Your task to perform on an android device: How big is the sun? Image 0: 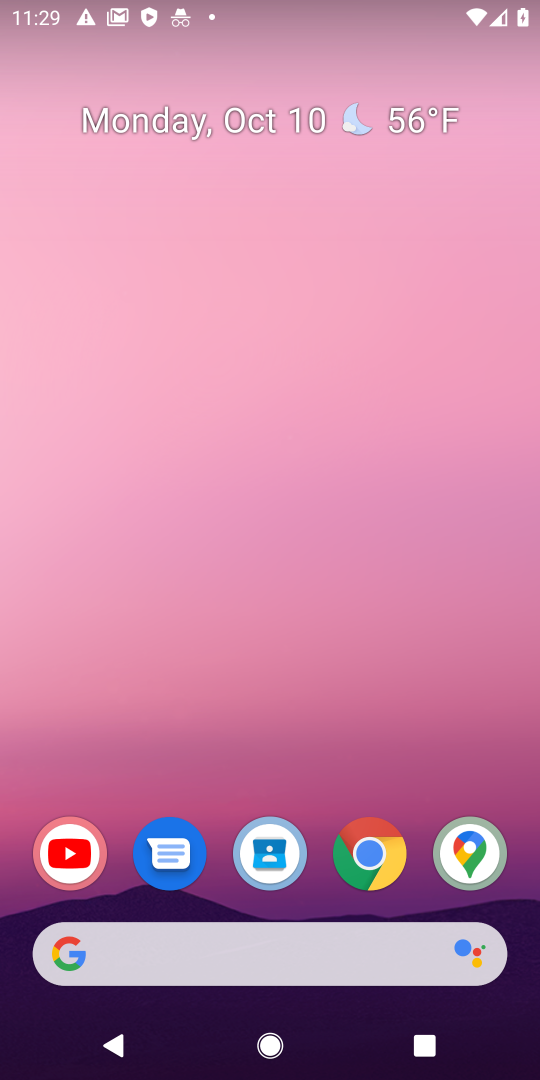
Step 0: click (338, 966)
Your task to perform on an android device: How big is the sun? Image 1: 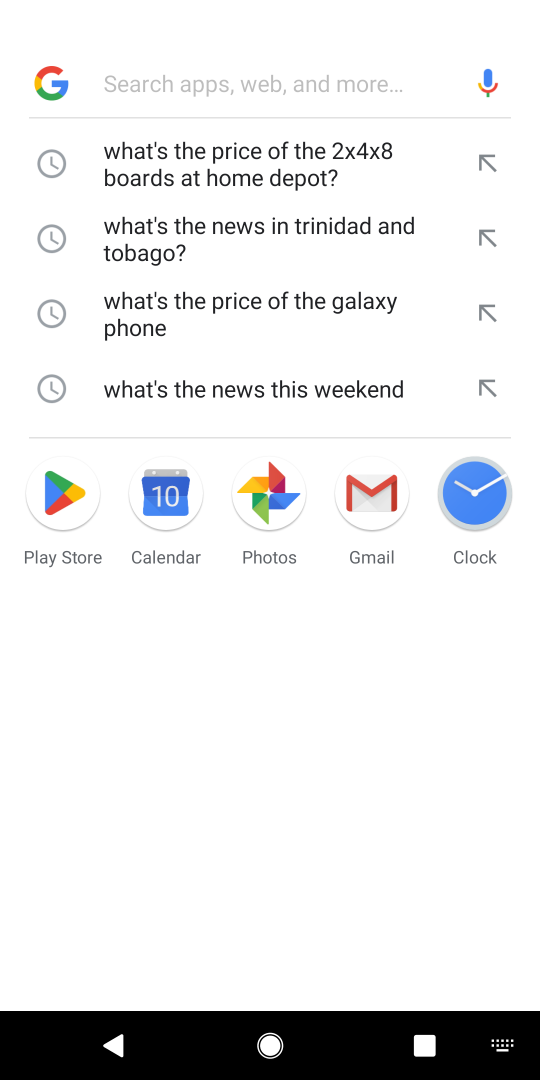
Step 1: type "How big is the sun?"
Your task to perform on an android device: How big is the sun? Image 2: 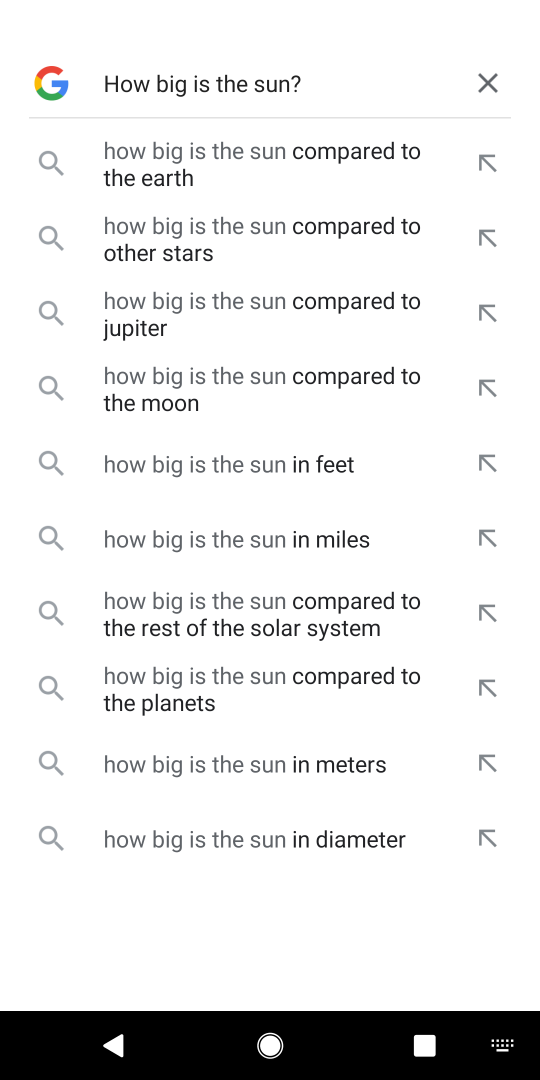
Step 2: press enter
Your task to perform on an android device: How big is the sun? Image 3: 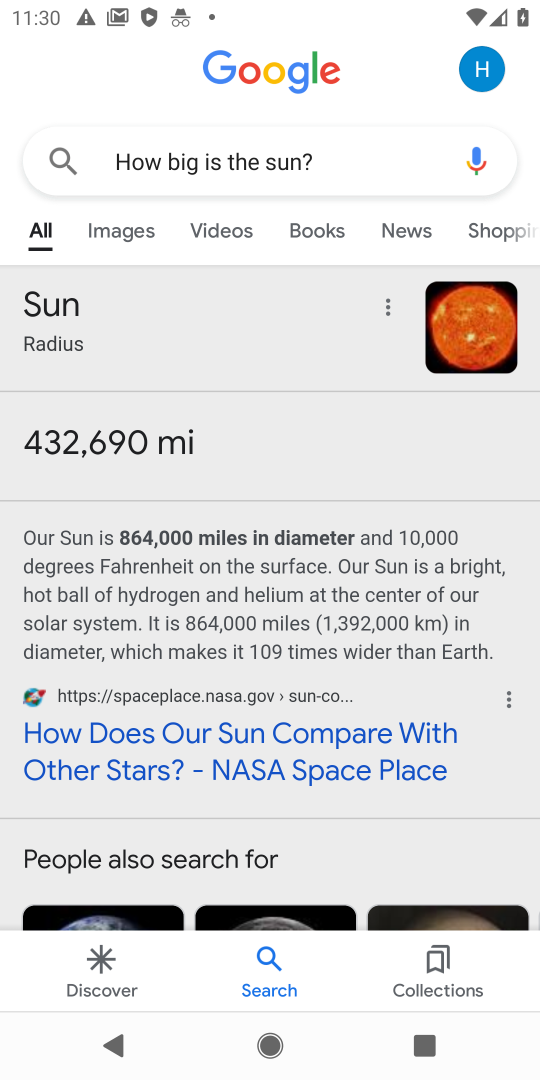
Step 3: task complete